Your task to perform on an android device: turn off location history Image 0: 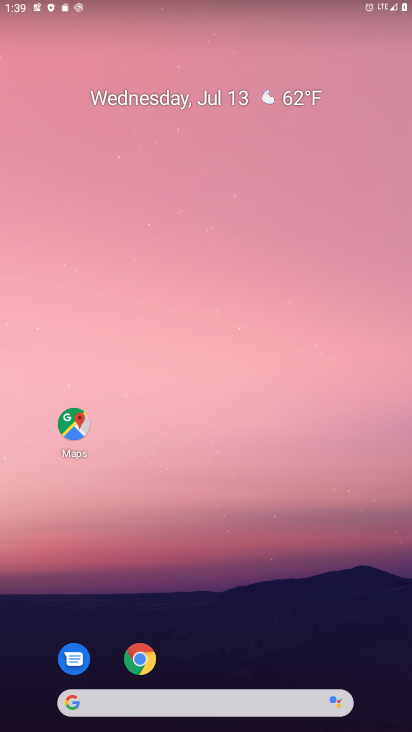
Step 0: drag from (232, 729) to (232, 47)
Your task to perform on an android device: turn off location history Image 1: 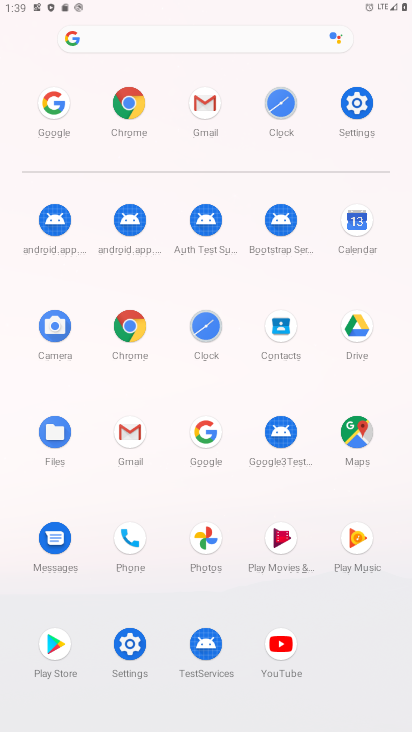
Step 1: click (355, 99)
Your task to perform on an android device: turn off location history Image 2: 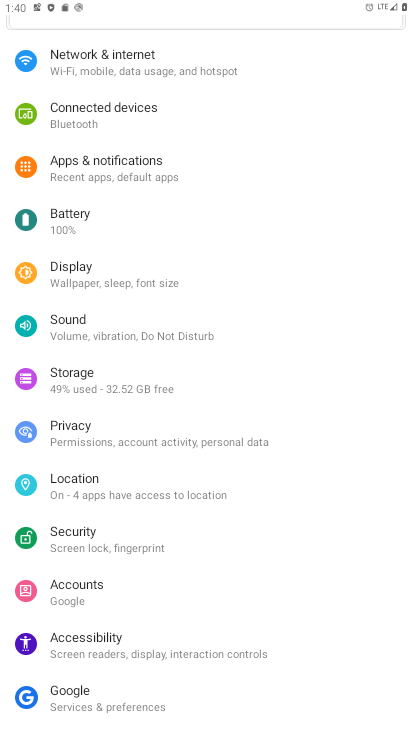
Step 2: click (83, 481)
Your task to perform on an android device: turn off location history Image 3: 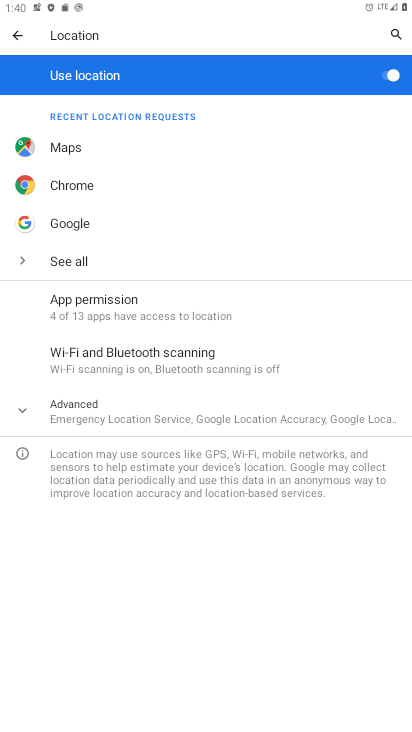
Step 3: click (57, 410)
Your task to perform on an android device: turn off location history Image 4: 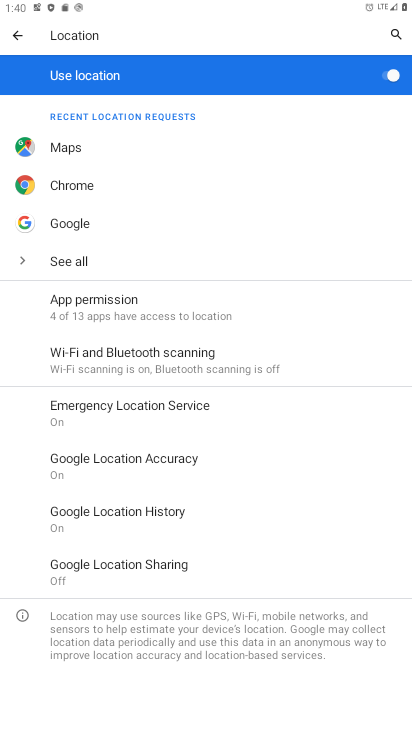
Step 4: click (104, 512)
Your task to perform on an android device: turn off location history Image 5: 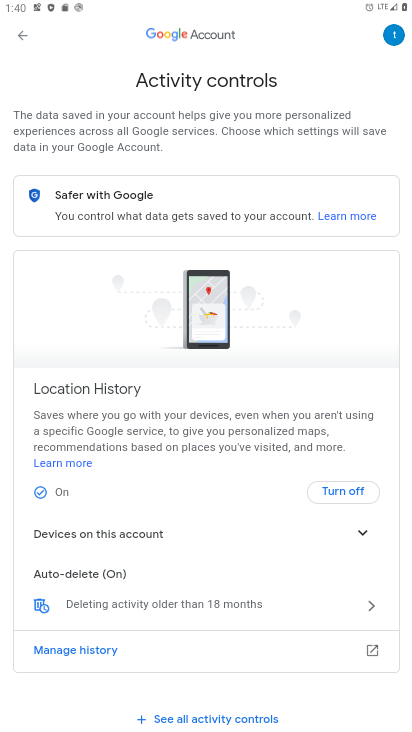
Step 5: click (343, 492)
Your task to perform on an android device: turn off location history Image 6: 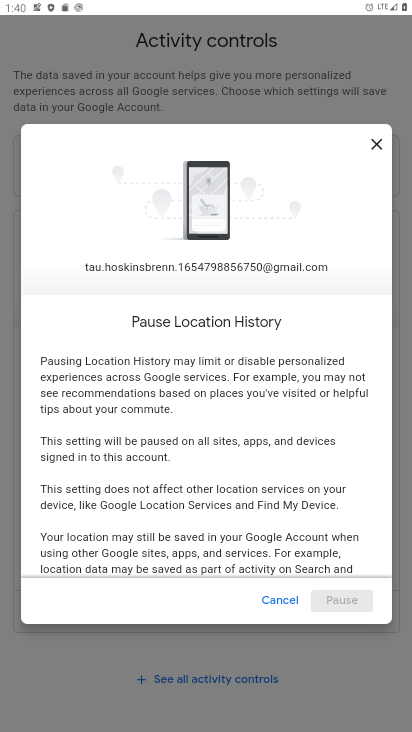
Step 6: drag from (286, 539) to (286, 303)
Your task to perform on an android device: turn off location history Image 7: 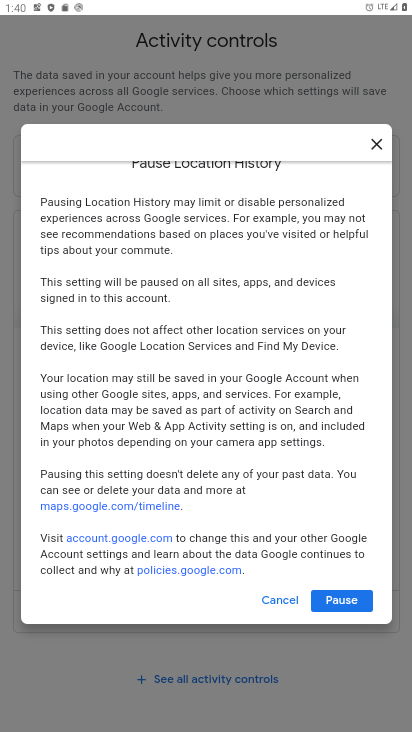
Step 7: click (340, 600)
Your task to perform on an android device: turn off location history Image 8: 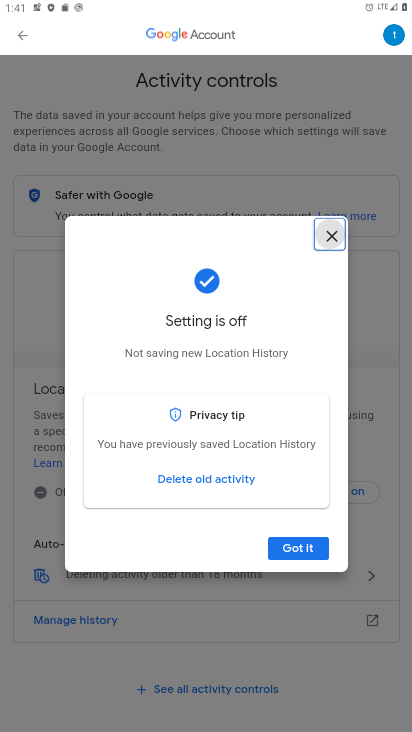
Step 8: click (289, 542)
Your task to perform on an android device: turn off location history Image 9: 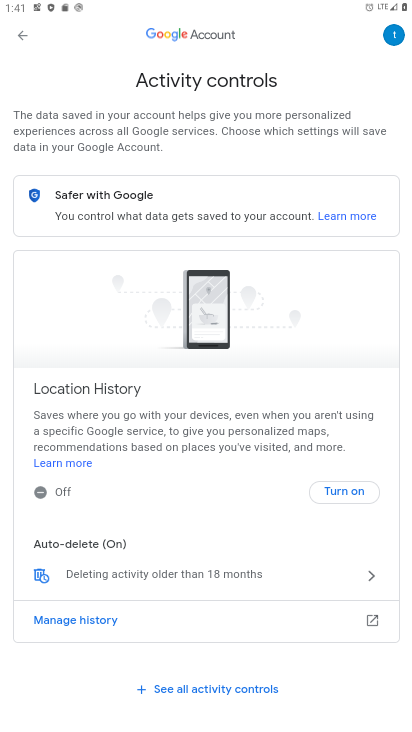
Step 9: task complete